Your task to perform on an android device: move an email to a new category in the gmail app Image 0: 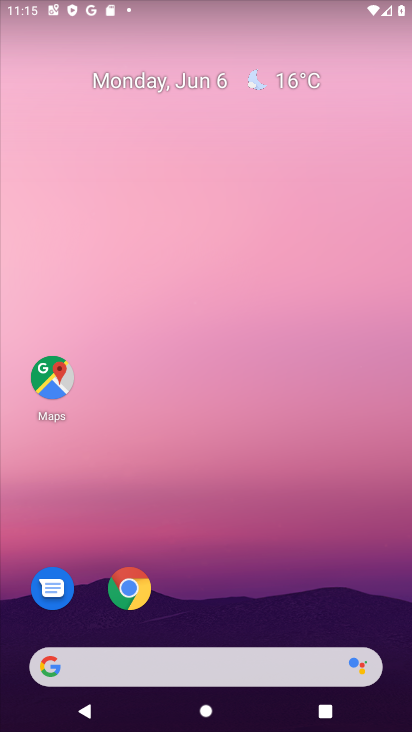
Step 0: drag from (313, 456) to (316, 62)
Your task to perform on an android device: move an email to a new category in the gmail app Image 1: 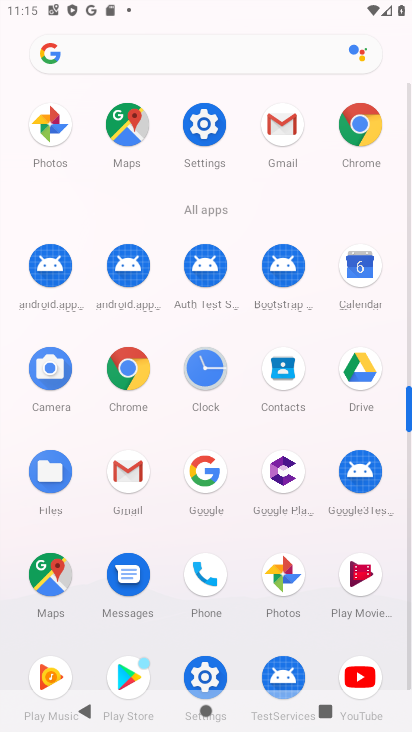
Step 1: click (276, 122)
Your task to perform on an android device: move an email to a new category in the gmail app Image 2: 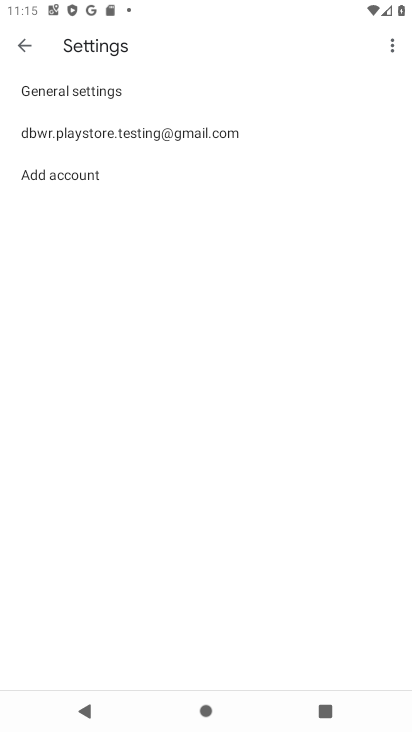
Step 2: click (47, 86)
Your task to perform on an android device: move an email to a new category in the gmail app Image 3: 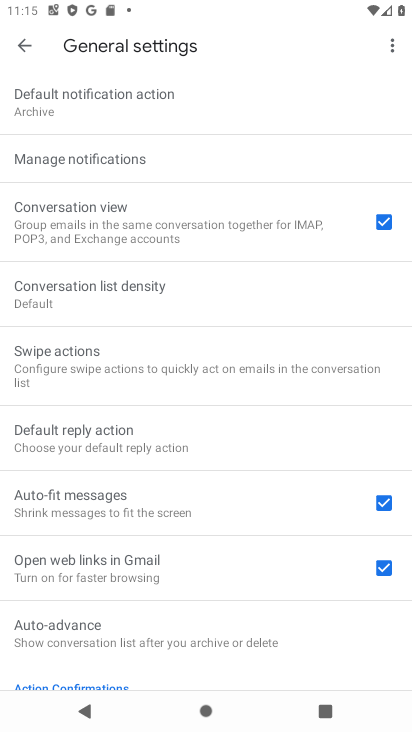
Step 3: task complete